Your task to perform on an android device: Open the stopwatch Image 0: 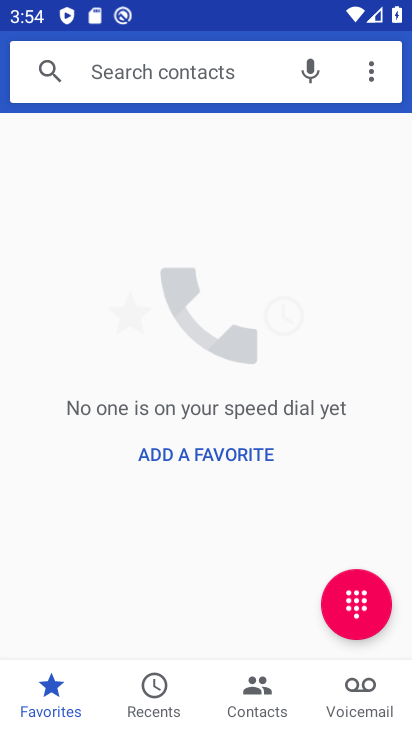
Step 0: press home button
Your task to perform on an android device: Open the stopwatch Image 1: 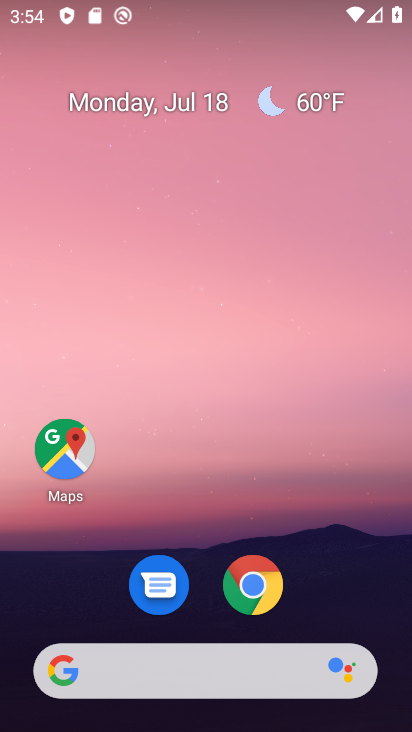
Step 1: drag from (308, 588) to (342, 91)
Your task to perform on an android device: Open the stopwatch Image 2: 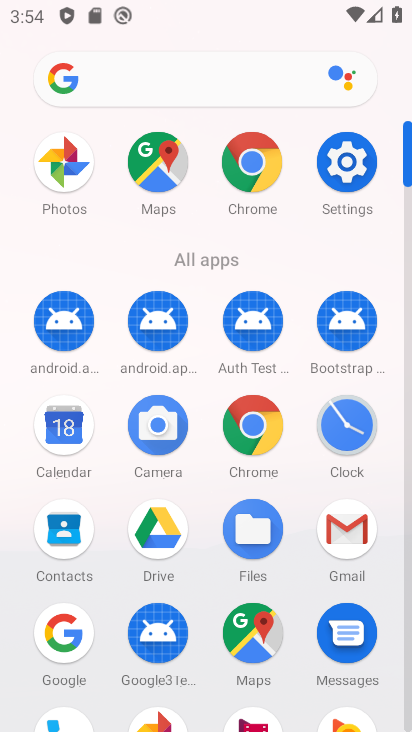
Step 2: click (346, 425)
Your task to perform on an android device: Open the stopwatch Image 3: 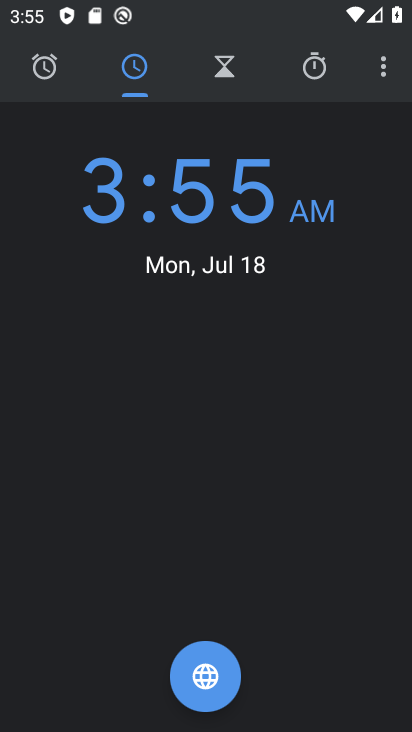
Step 3: click (321, 73)
Your task to perform on an android device: Open the stopwatch Image 4: 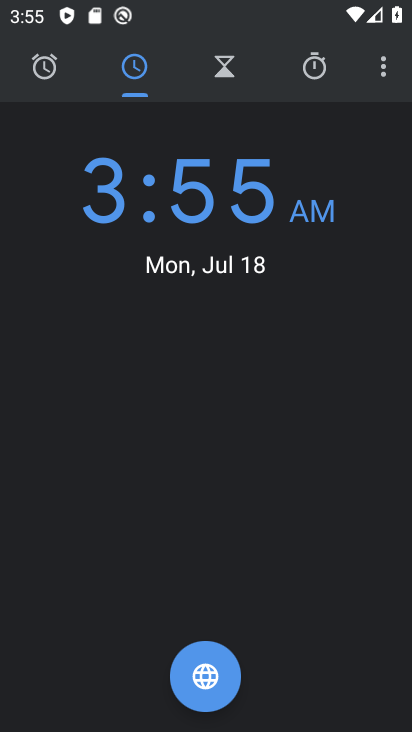
Step 4: click (312, 62)
Your task to perform on an android device: Open the stopwatch Image 5: 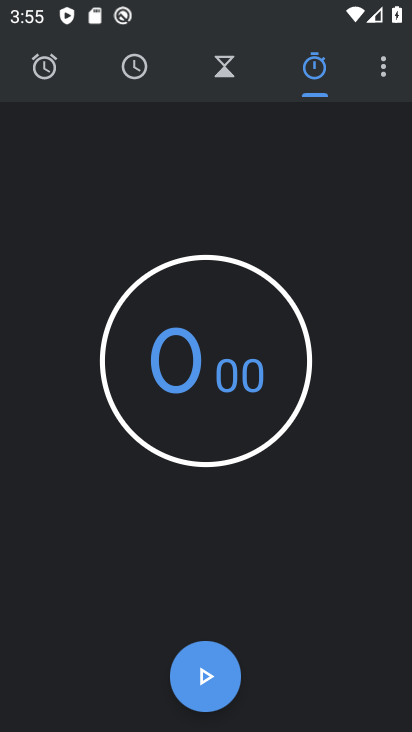
Step 5: task complete